Your task to perform on an android device: Go to Maps Image 0: 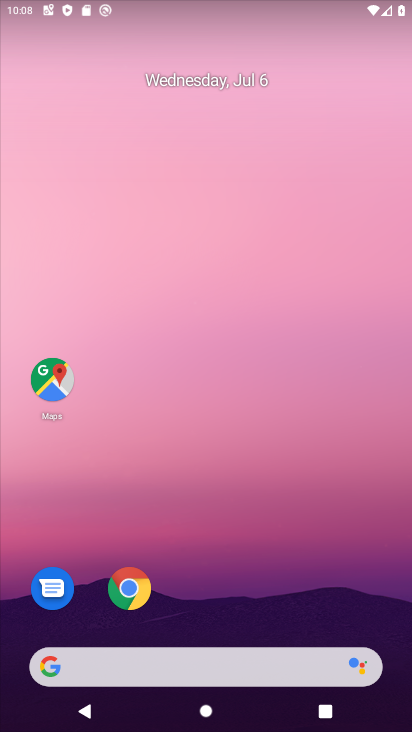
Step 0: drag from (265, 584) to (248, 184)
Your task to perform on an android device: Go to Maps Image 1: 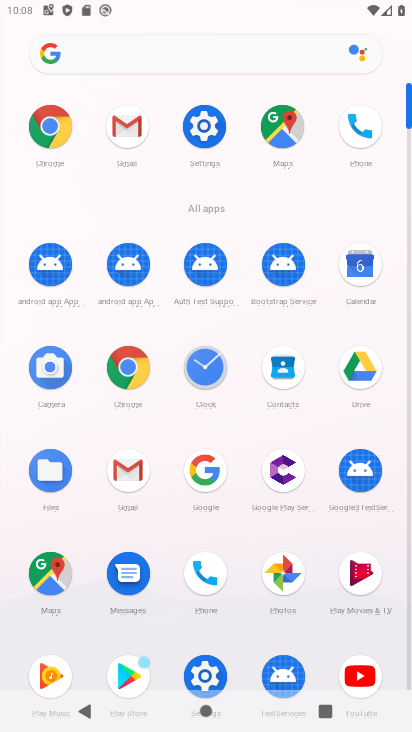
Step 1: click (52, 575)
Your task to perform on an android device: Go to Maps Image 2: 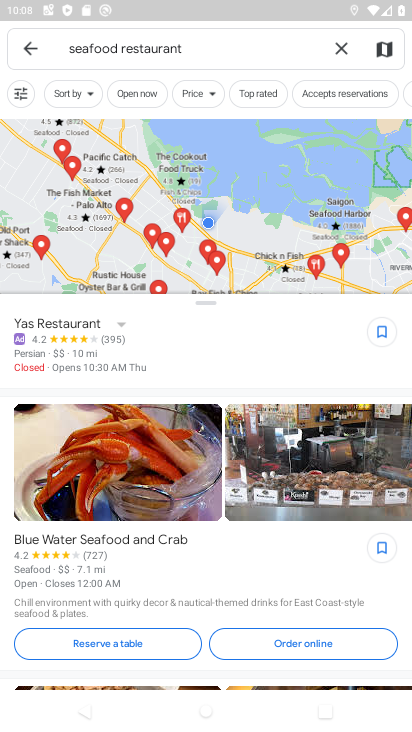
Step 2: task complete